Your task to perform on an android device: Clear the cart on costco. Search for macbook pro 15 inch on costco, select the first entry, add it to the cart, then select checkout. Image 0: 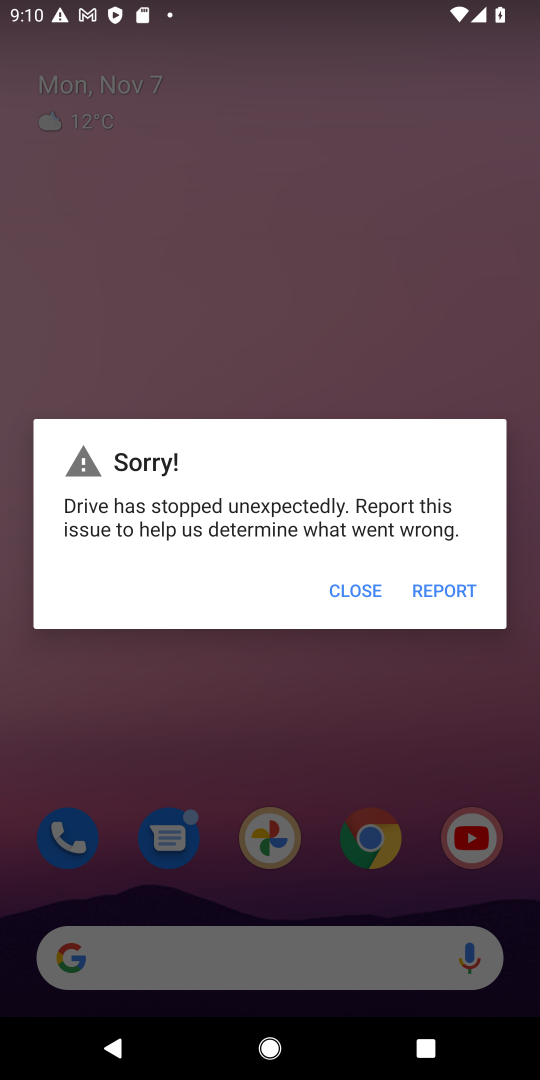
Step 0: click (347, 585)
Your task to perform on an android device: Clear the cart on costco. Search for macbook pro 15 inch on costco, select the first entry, add it to the cart, then select checkout. Image 1: 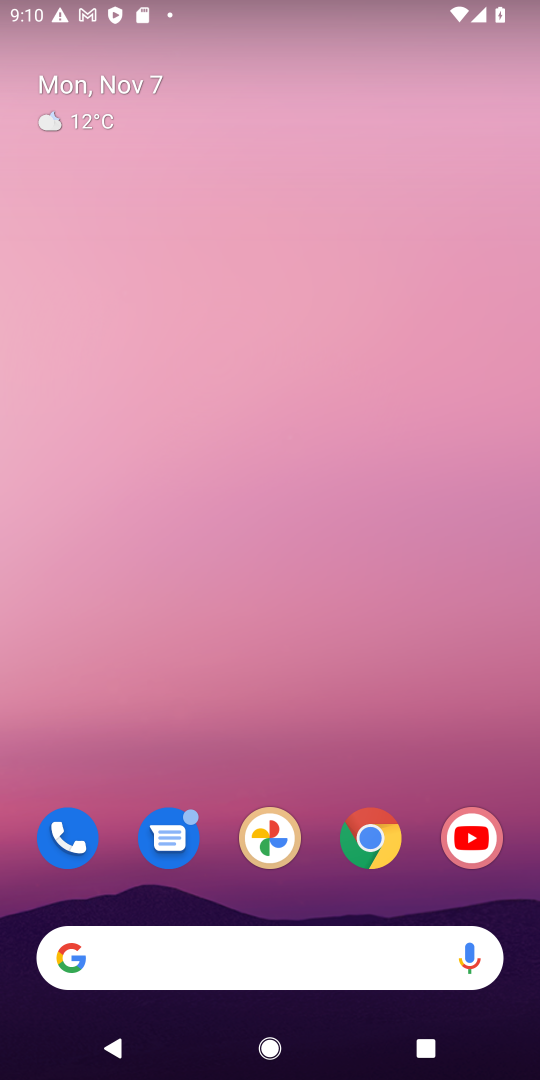
Step 1: click (388, 842)
Your task to perform on an android device: Clear the cart on costco. Search for macbook pro 15 inch on costco, select the first entry, add it to the cart, then select checkout. Image 2: 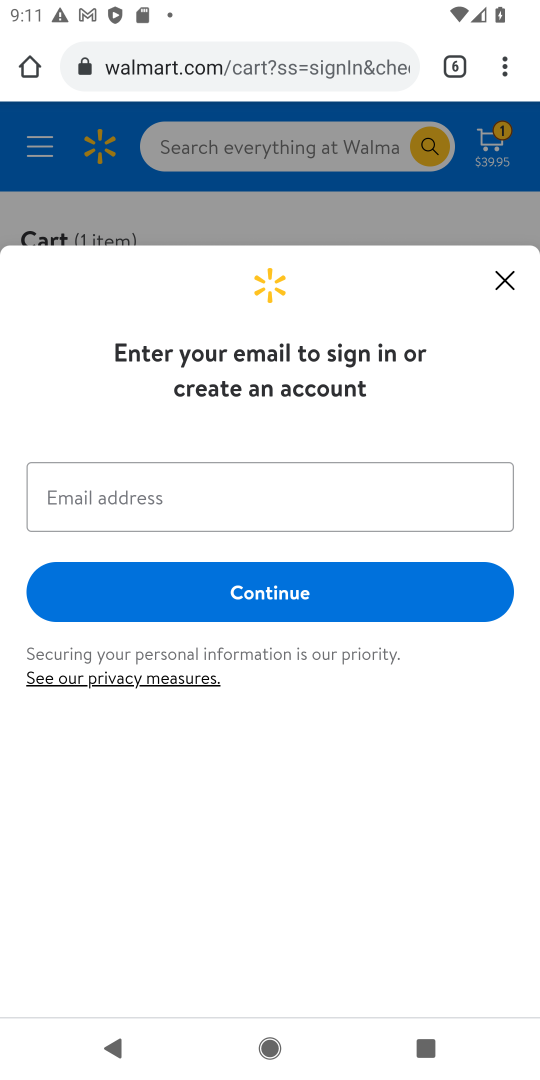
Step 2: click (510, 276)
Your task to perform on an android device: Clear the cart on costco. Search for macbook pro 15 inch on costco, select the first entry, add it to the cart, then select checkout. Image 3: 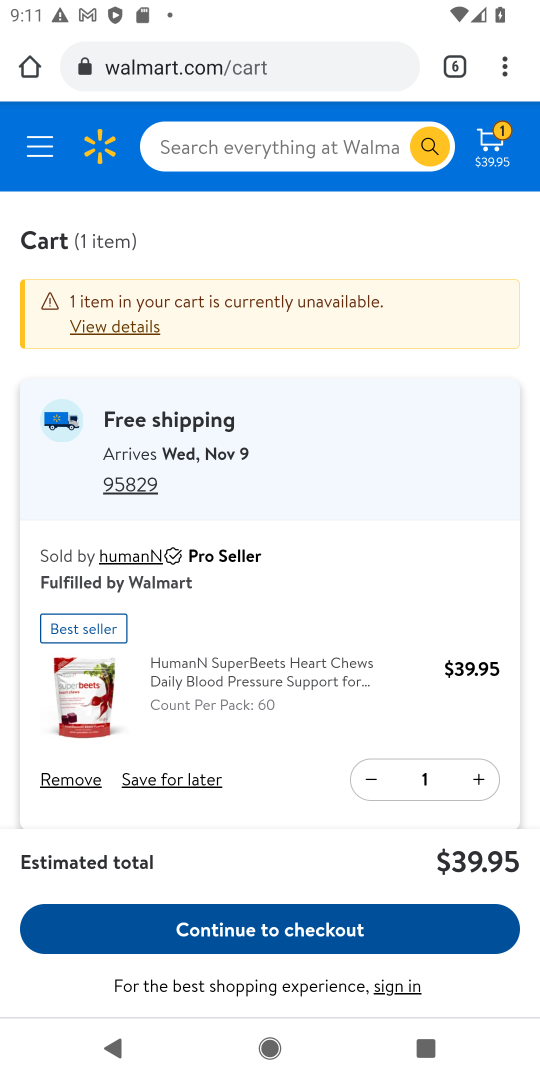
Step 3: click (465, 76)
Your task to perform on an android device: Clear the cart on costco. Search for macbook pro 15 inch on costco, select the first entry, add it to the cart, then select checkout. Image 4: 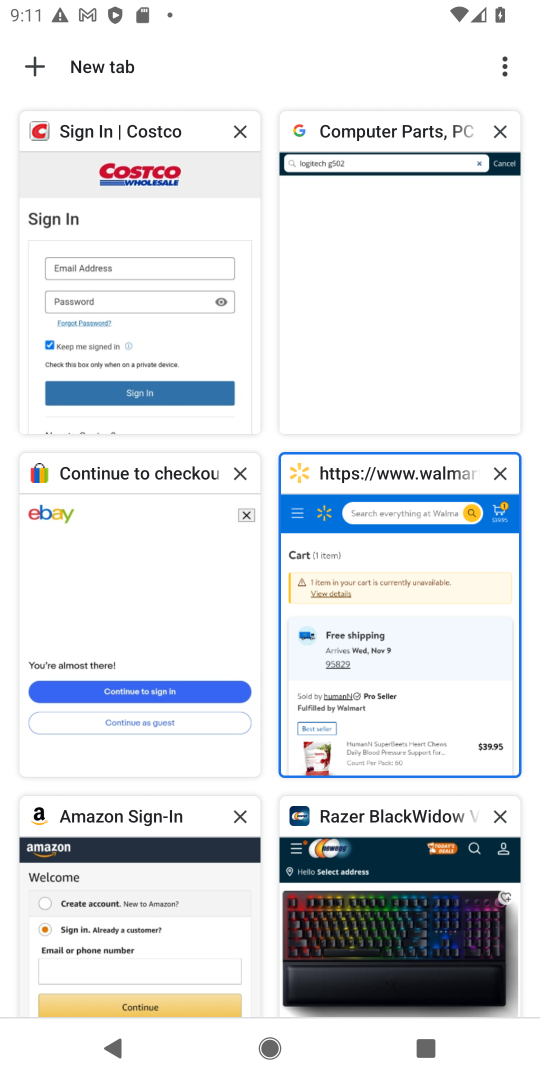
Step 4: click (154, 217)
Your task to perform on an android device: Clear the cart on costco. Search for macbook pro 15 inch on costco, select the first entry, add it to the cart, then select checkout. Image 5: 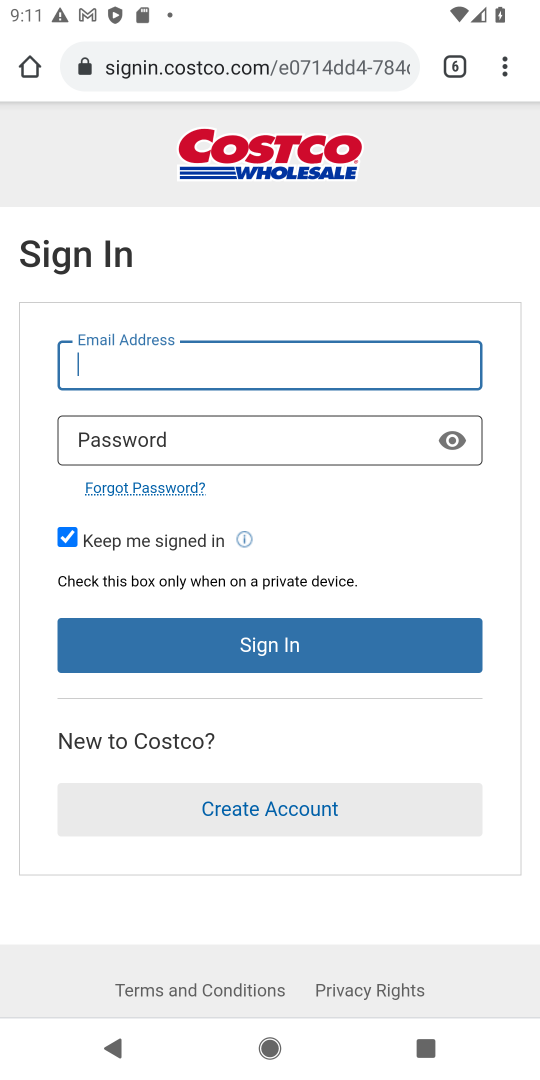
Step 5: press back button
Your task to perform on an android device: Clear the cart on costco. Search for macbook pro 15 inch on costco, select the first entry, add it to the cart, then select checkout. Image 6: 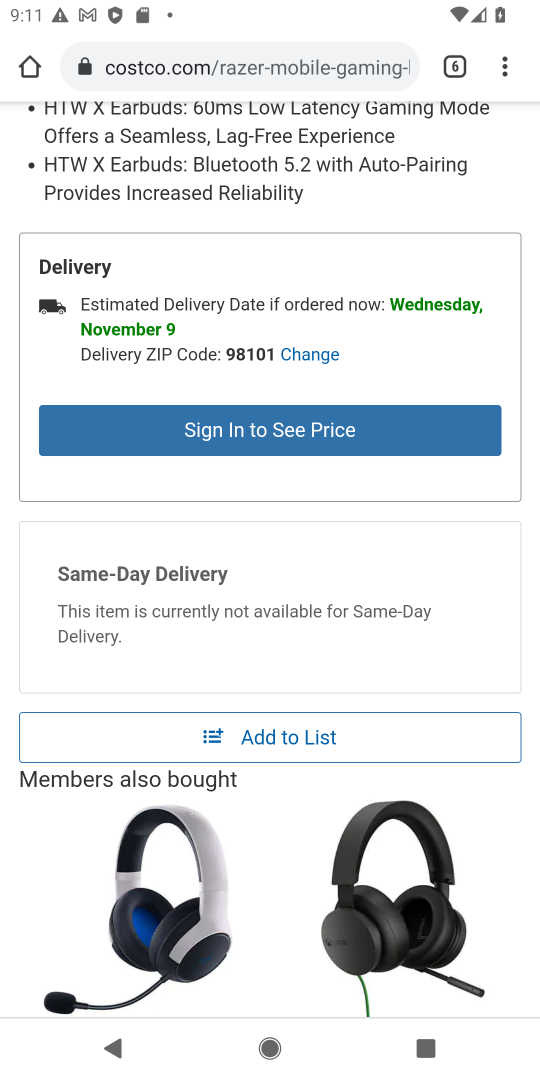
Step 6: drag from (279, 318) to (149, 986)
Your task to perform on an android device: Clear the cart on costco. Search for macbook pro 15 inch on costco, select the first entry, add it to the cart, then select checkout. Image 7: 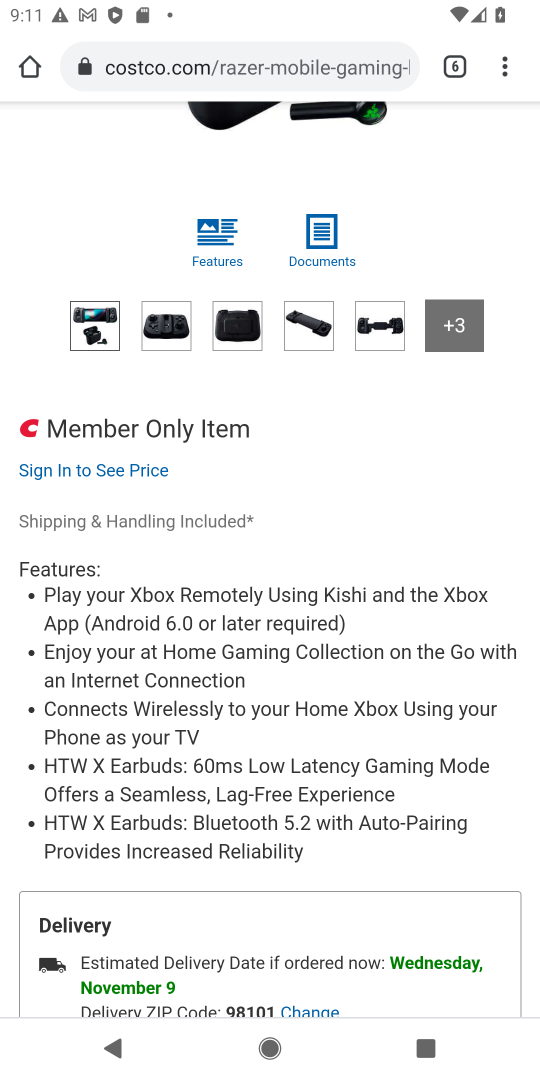
Step 7: drag from (404, 407) to (335, 1047)
Your task to perform on an android device: Clear the cart on costco. Search for macbook pro 15 inch on costco, select the first entry, add it to the cart, then select checkout. Image 8: 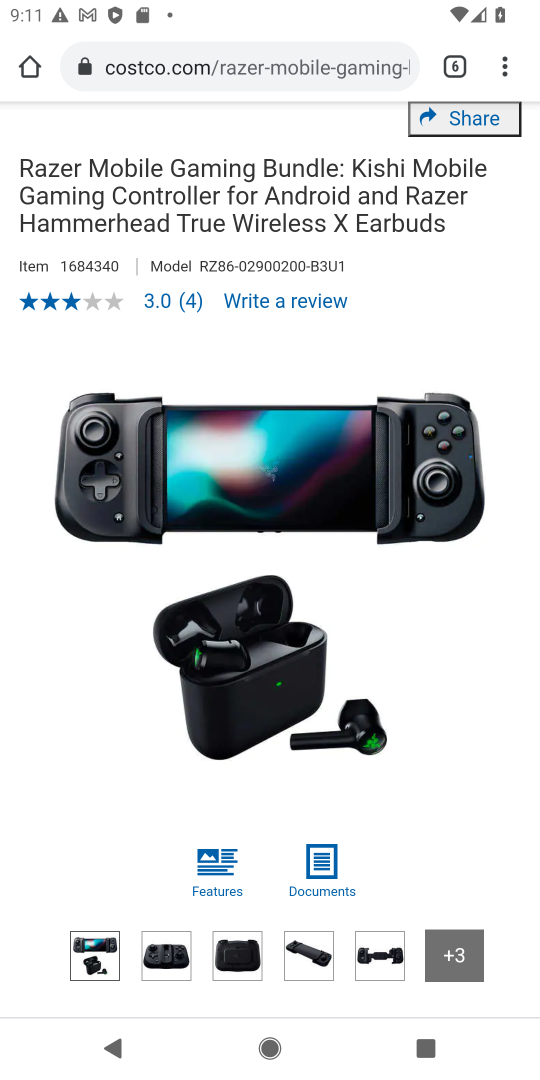
Step 8: drag from (307, 176) to (315, 668)
Your task to perform on an android device: Clear the cart on costco. Search for macbook pro 15 inch on costco, select the first entry, add it to the cart, then select checkout. Image 9: 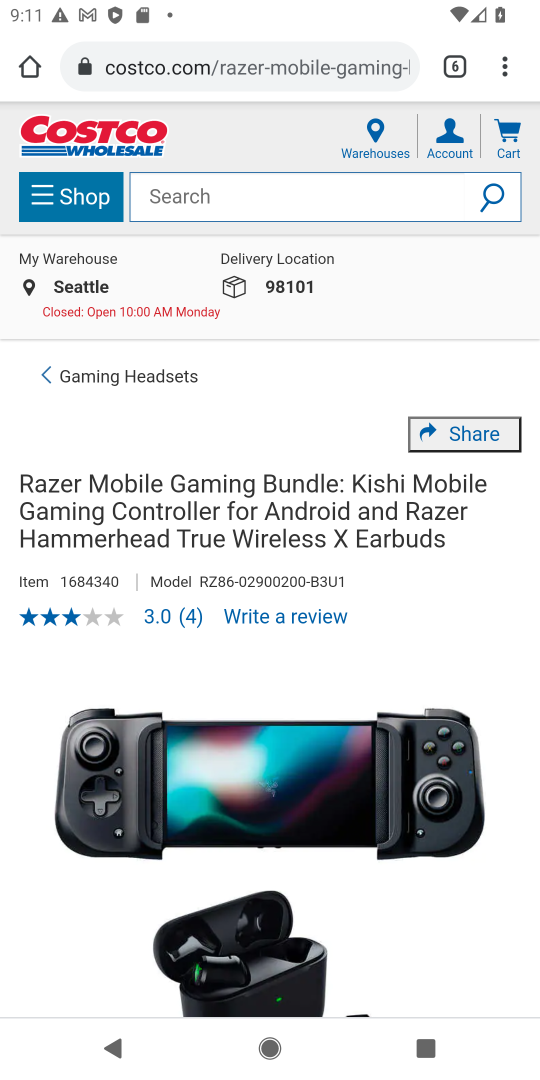
Step 9: click (252, 189)
Your task to perform on an android device: Clear the cart on costco. Search for macbook pro 15 inch on costco, select the first entry, add it to the cart, then select checkout. Image 10: 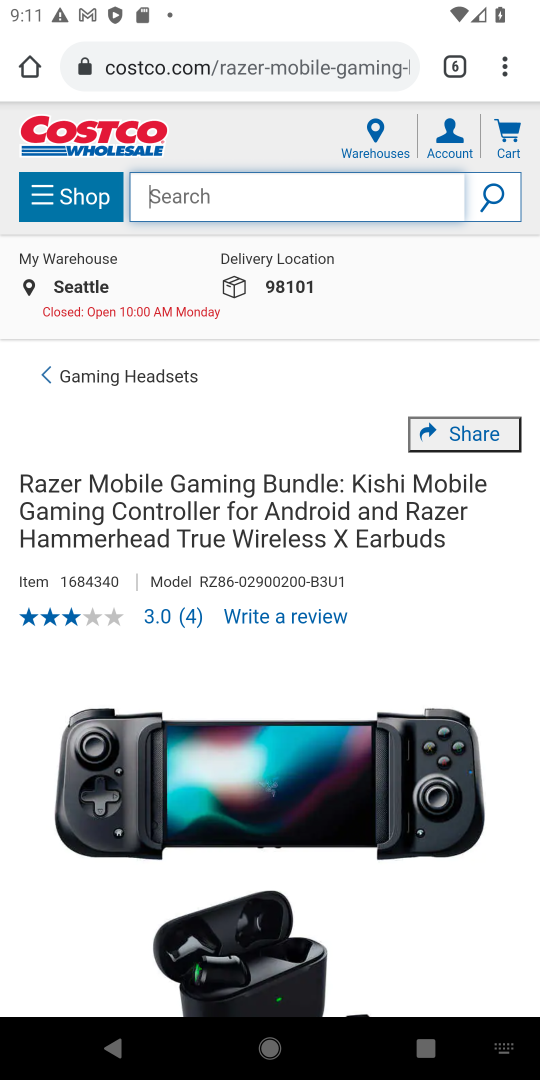
Step 10: type "macbook pro 15 inch"
Your task to perform on an android device: Clear the cart on costco. Search for macbook pro 15 inch on costco, select the first entry, add it to the cart, then select checkout. Image 11: 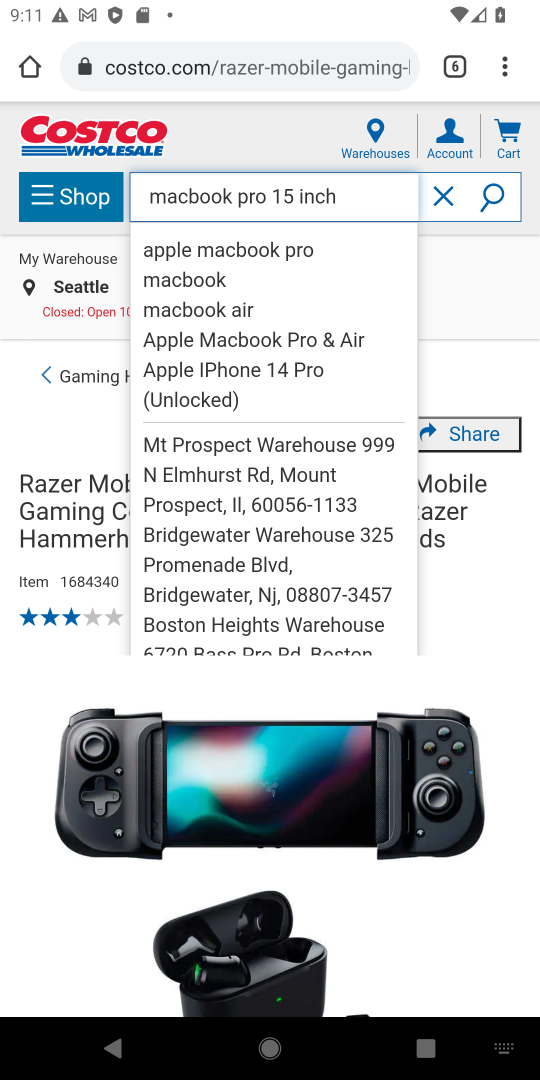
Step 11: click (235, 246)
Your task to perform on an android device: Clear the cart on costco. Search for macbook pro 15 inch on costco, select the first entry, add it to the cart, then select checkout. Image 12: 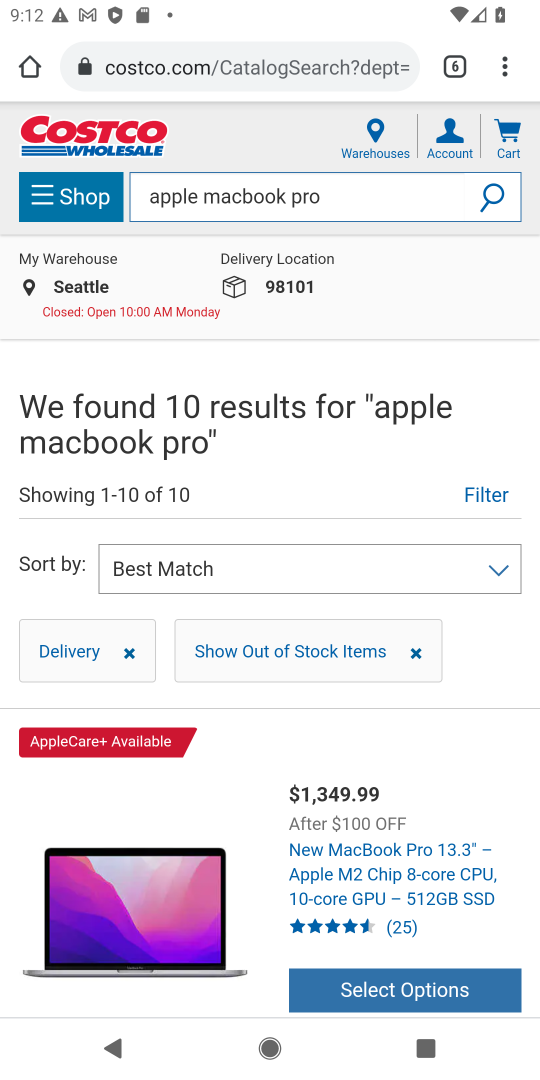
Step 12: click (372, 916)
Your task to perform on an android device: Clear the cart on costco. Search for macbook pro 15 inch on costco, select the first entry, add it to the cart, then select checkout. Image 13: 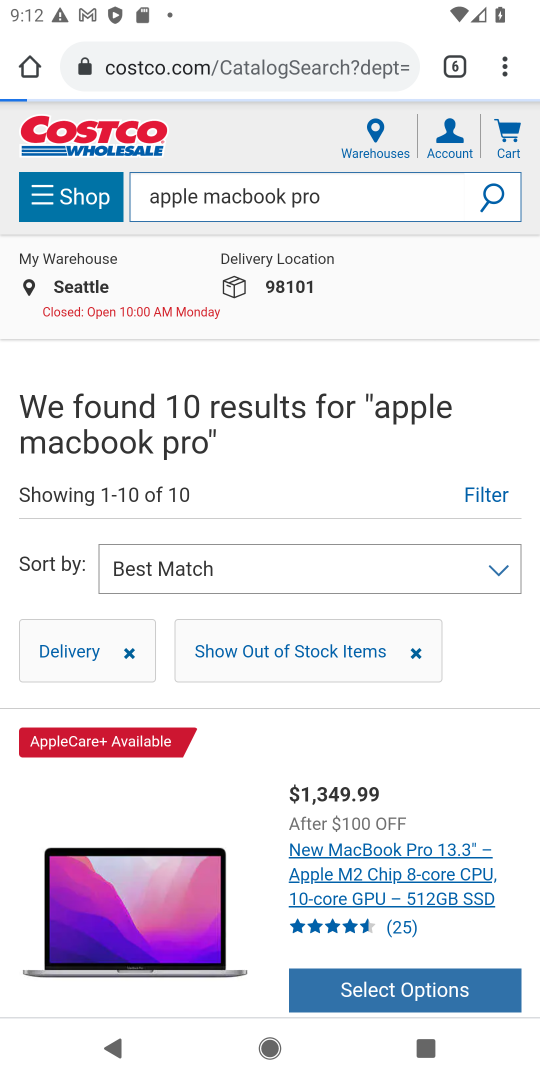
Step 13: click (384, 889)
Your task to perform on an android device: Clear the cart on costco. Search for macbook pro 15 inch on costco, select the first entry, add it to the cart, then select checkout. Image 14: 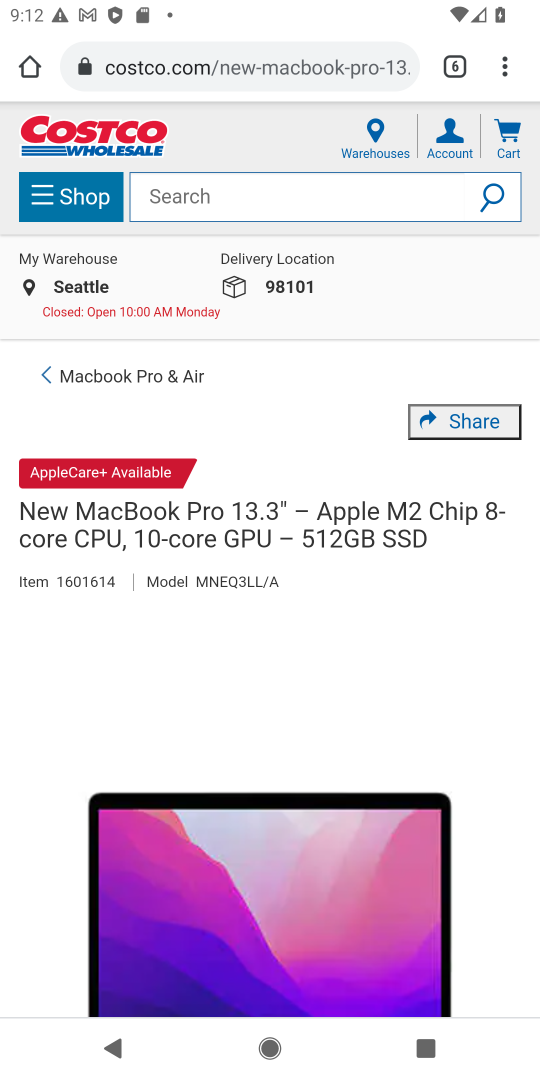
Step 14: drag from (483, 878) to (531, 814)
Your task to perform on an android device: Clear the cart on costco. Search for macbook pro 15 inch on costco, select the first entry, add it to the cart, then select checkout. Image 15: 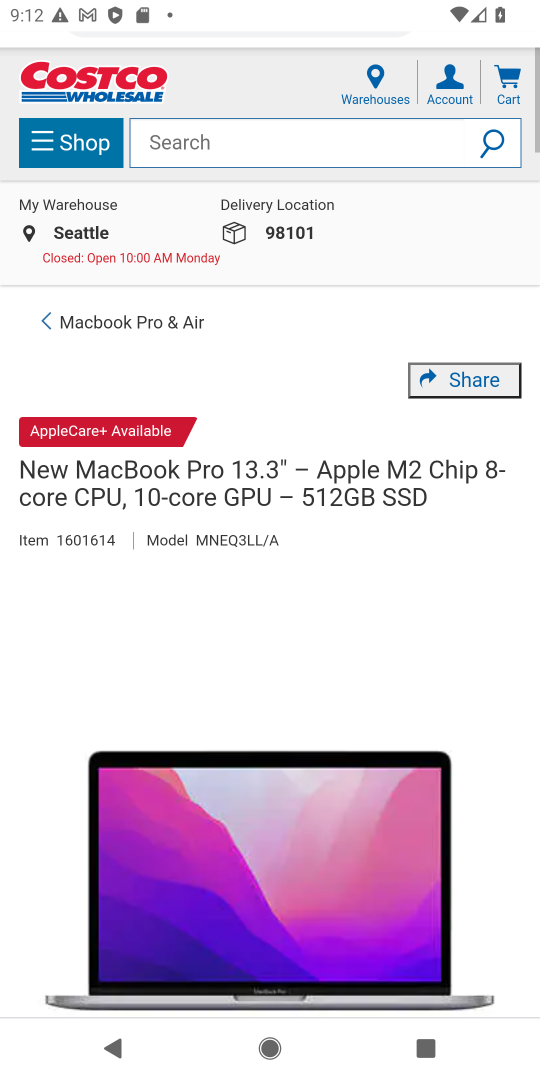
Step 15: drag from (481, 837) to (501, 492)
Your task to perform on an android device: Clear the cart on costco. Search for macbook pro 15 inch on costco, select the first entry, add it to the cart, then select checkout. Image 16: 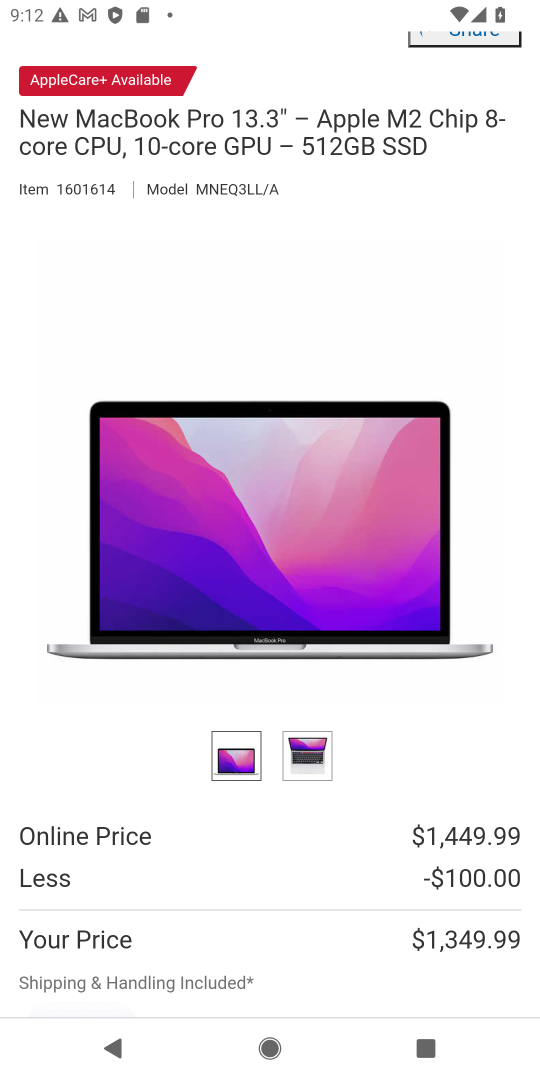
Step 16: drag from (311, 853) to (360, 87)
Your task to perform on an android device: Clear the cart on costco. Search for macbook pro 15 inch on costco, select the first entry, add it to the cart, then select checkout. Image 17: 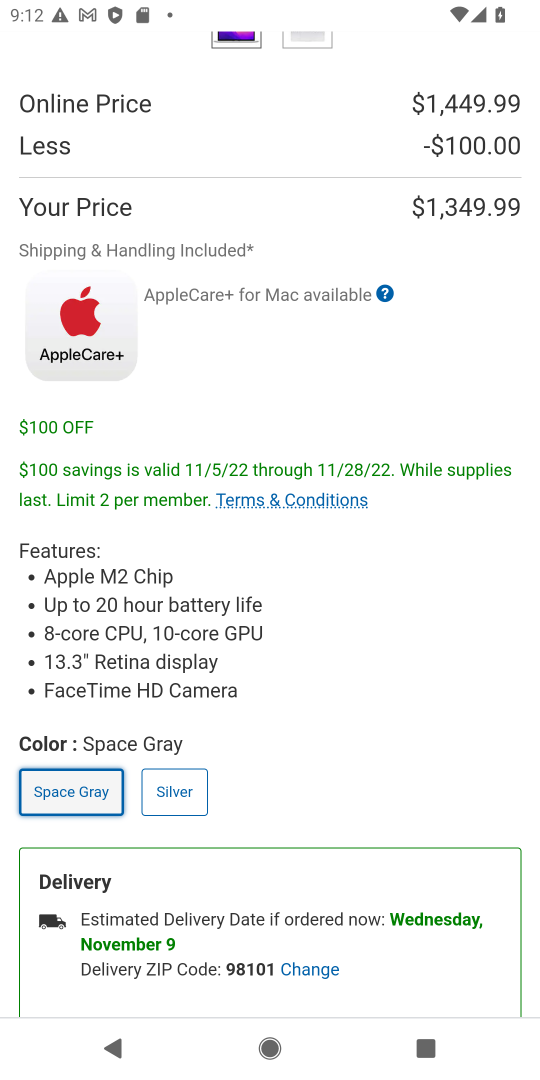
Step 17: drag from (258, 649) to (318, 253)
Your task to perform on an android device: Clear the cart on costco. Search for macbook pro 15 inch on costco, select the first entry, add it to the cart, then select checkout. Image 18: 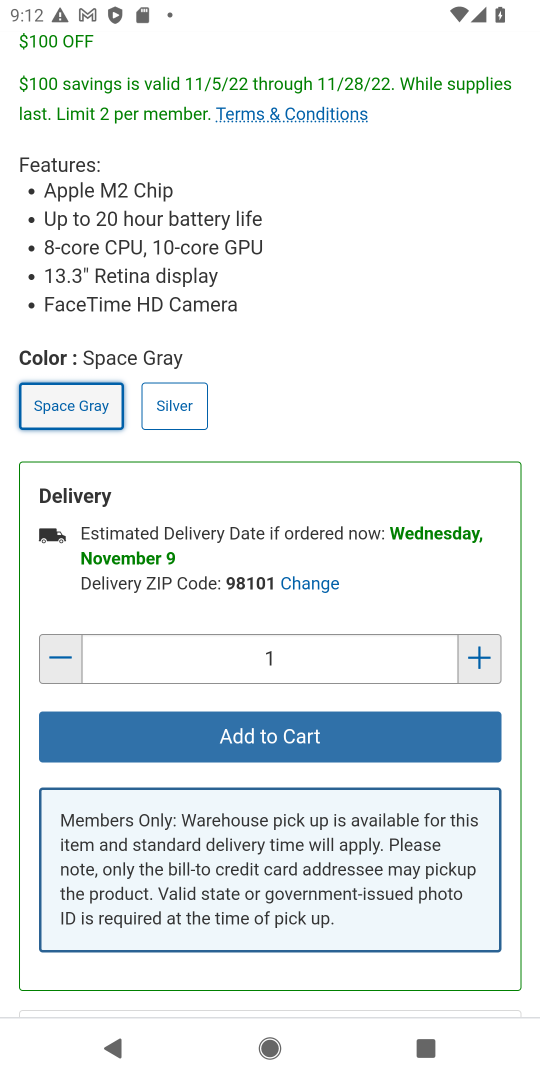
Step 18: click (239, 748)
Your task to perform on an android device: Clear the cart on costco. Search for macbook pro 15 inch on costco, select the first entry, add it to the cart, then select checkout. Image 19: 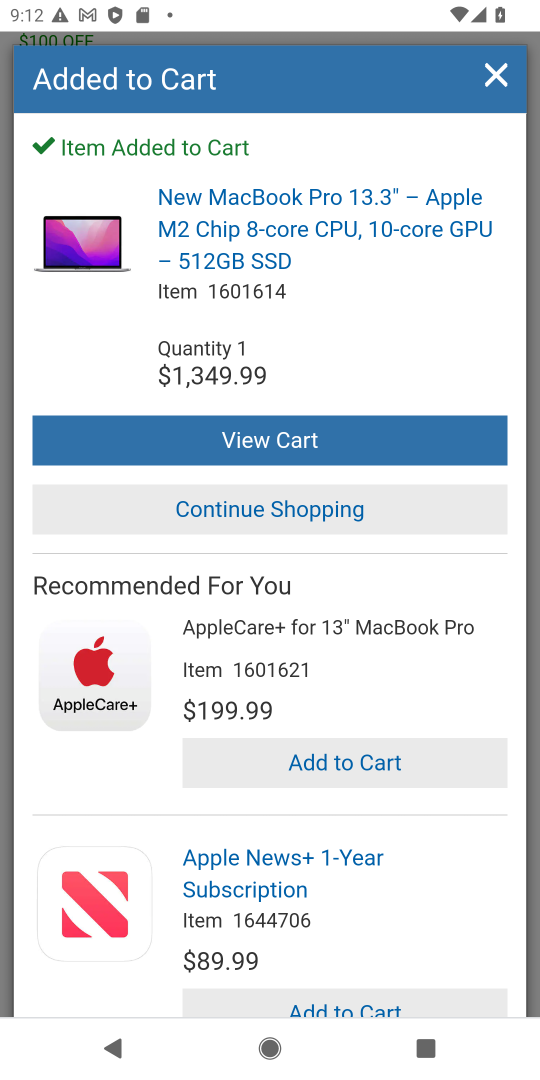
Step 19: task complete